Your task to perform on an android device: change the clock style Image 0: 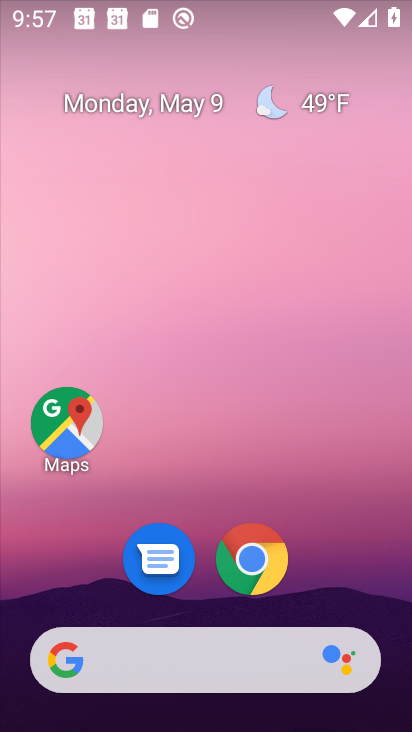
Step 0: drag from (192, 728) to (186, 227)
Your task to perform on an android device: change the clock style Image 1: 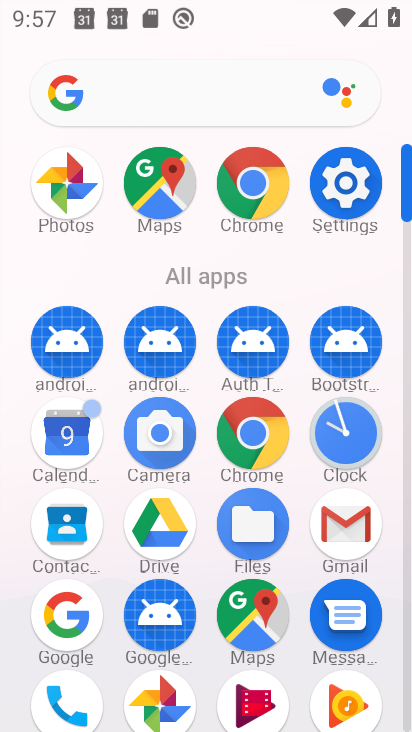
Step 1: click (349, 423)
Your task to perform on an android device: change the clock style Image 2: 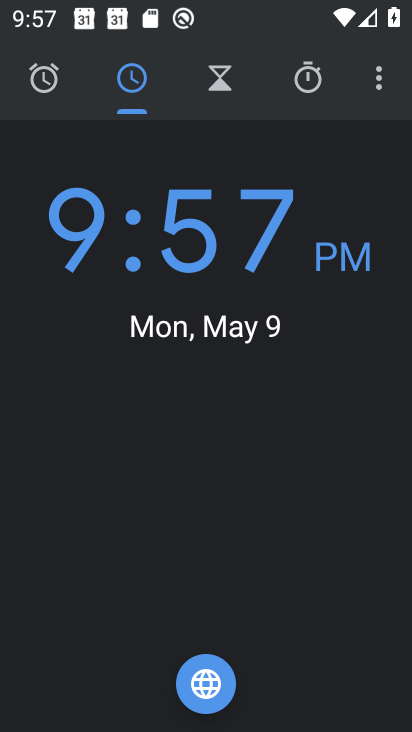
Step 2: click (379, 85)
Your task to perform on an android device: change the clock style Image 3: 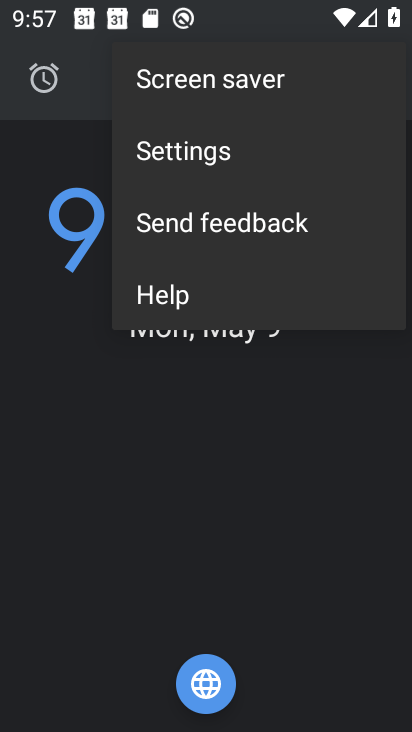
Step 3: click (188, 152)
Your task to perform on an android device: change the clock style Image 4: 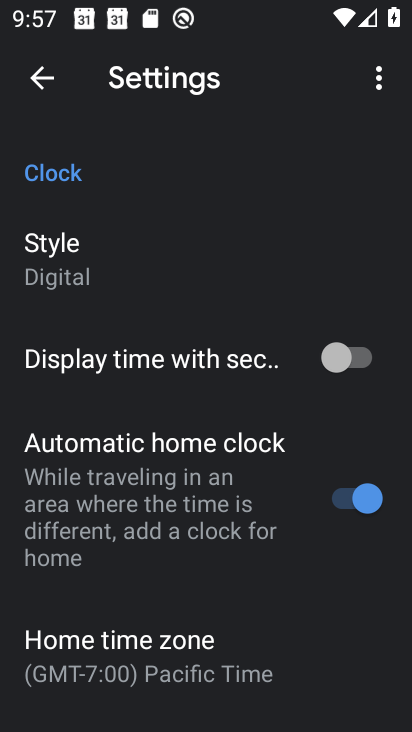
Step 4: drag from (158, 619) to (150, 549)
Your task to perform on an android device: change the clock style Image 5: 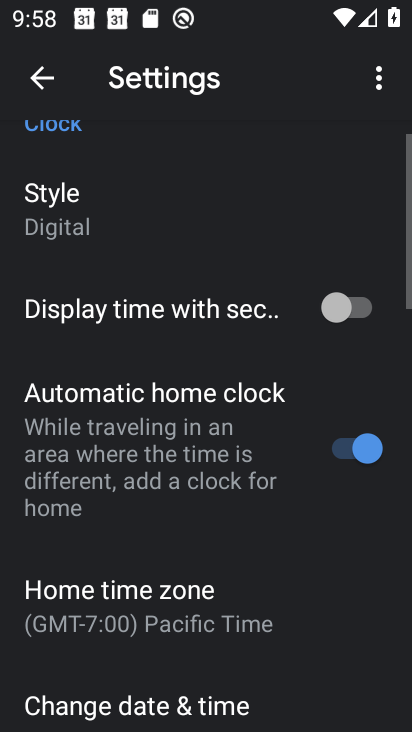
Step 5: click (58, 202)
Your task to perform on an android device: change the clock style Image 6: 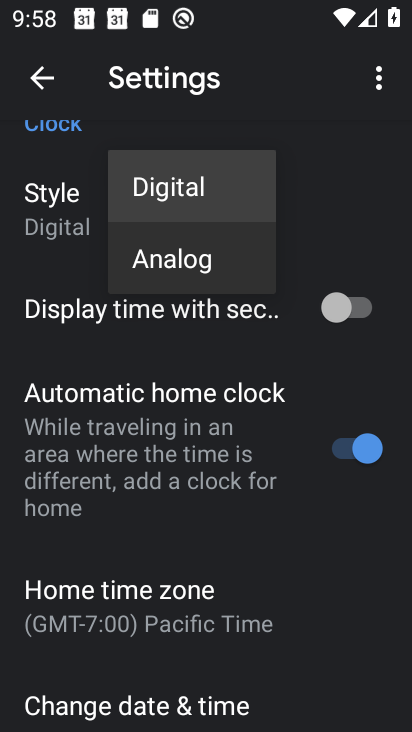
Step 6: click (187, 264)
Your task to perform on an android device: change the clock style Image 7: 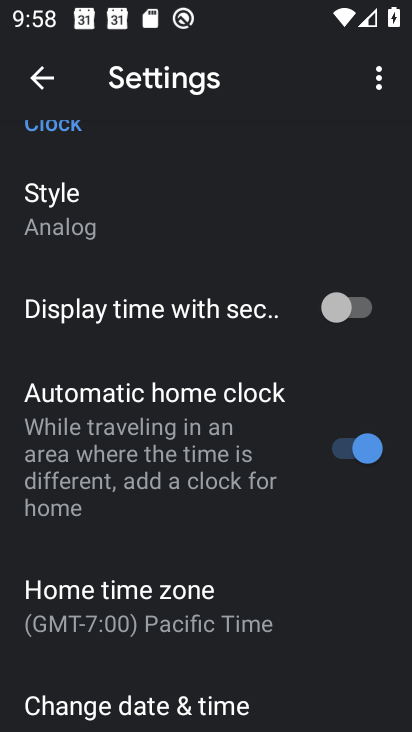
Step 7: task complete